Your task to perform on an android device: turn on notifications settings in the gmail app Image 0: 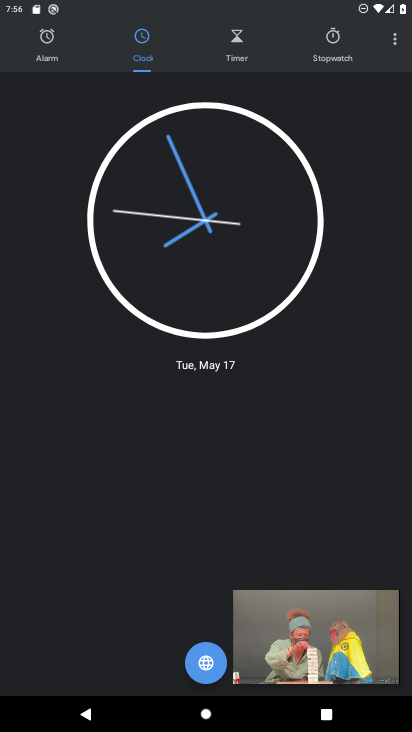
Step 0: click (337, 634)
Your task to perform on an android device: turn on notifications settings in the gmail app Image 1: 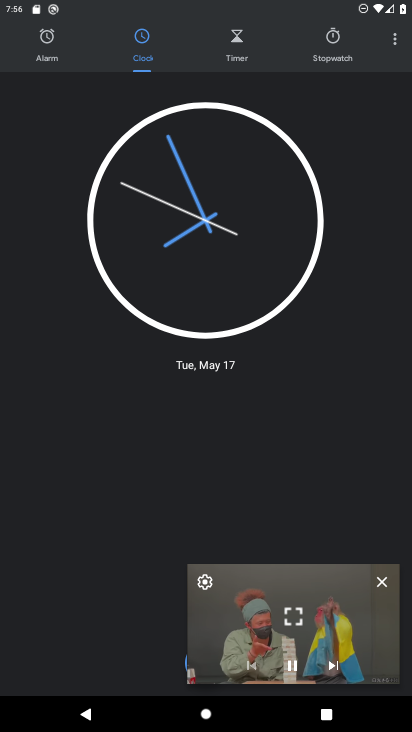
Step 1: click (381, 582)
Your task to perform on an android device: turn on notifications settings in the gmail app Image 2: 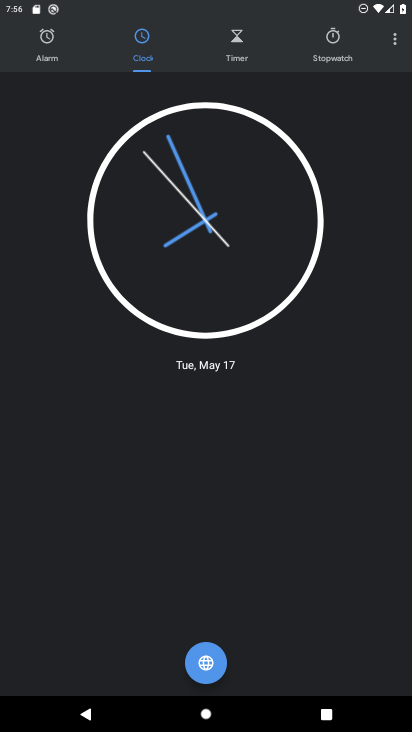
Step 2: press home button
Your task to perform on an android device: turn on notifications settings in the gmail app Image 3: 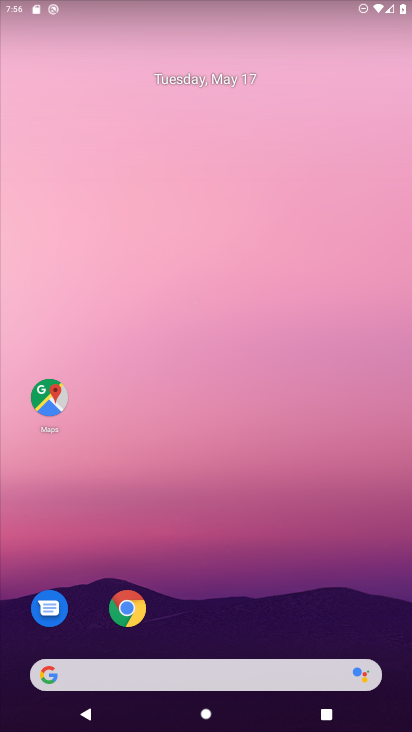
Step 3: drag from (224, 599) to (313, 5)
Your task to perform on an android device: turn on notifications settings in the gmail app Image 4: 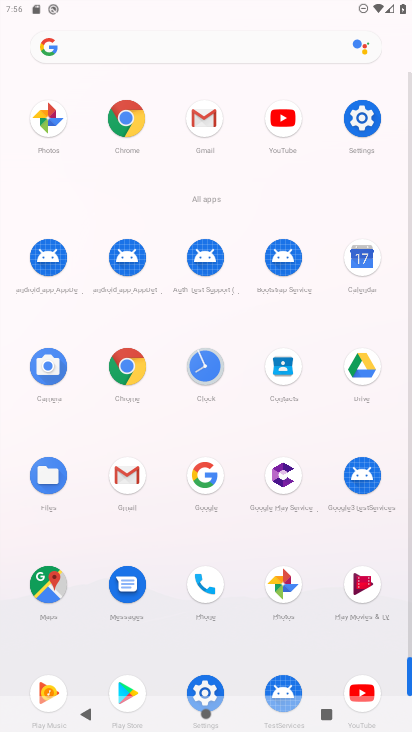
Step 4: click (126, 477)
Your task to perform on an android device: turn on notifications settings in the gmail app Image 5: 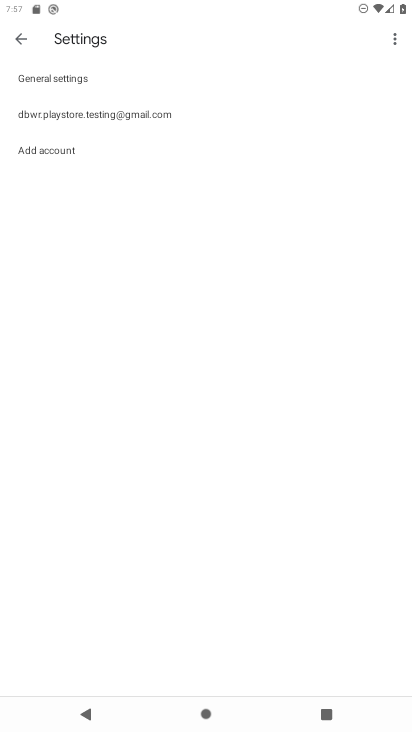
Step 5: click (66, 79)
Your task to perform on an android device: turn on notifications settings in the gmail app Image 6: 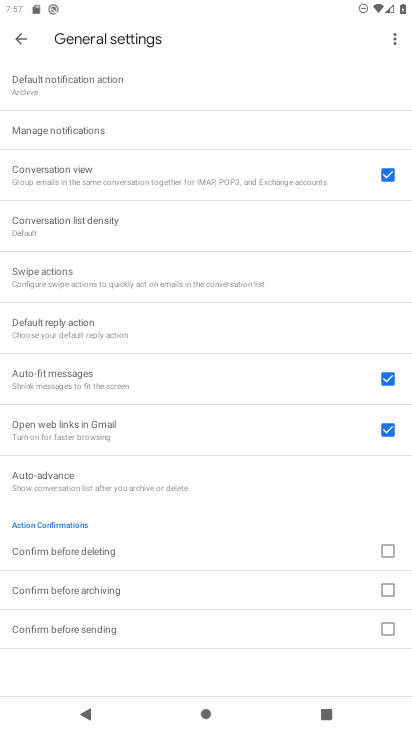
Step 6: click (67, 127)
Your task to perform on an android device: turn on notifications settings in the gmail app Image 7: 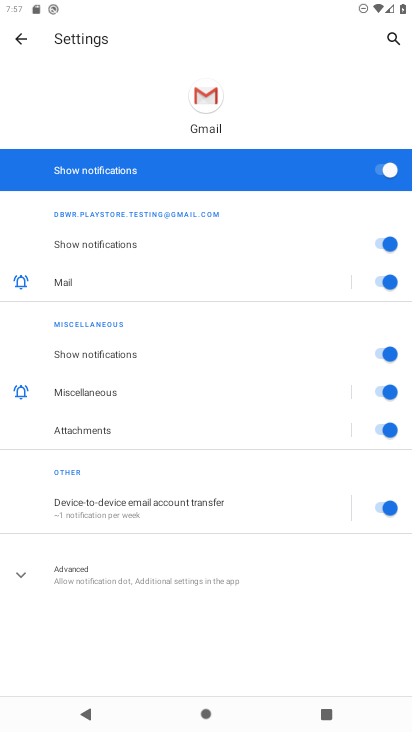
Step 7: task complete